Your task to perform on an android device: add a contact in the contacts app Image 0: 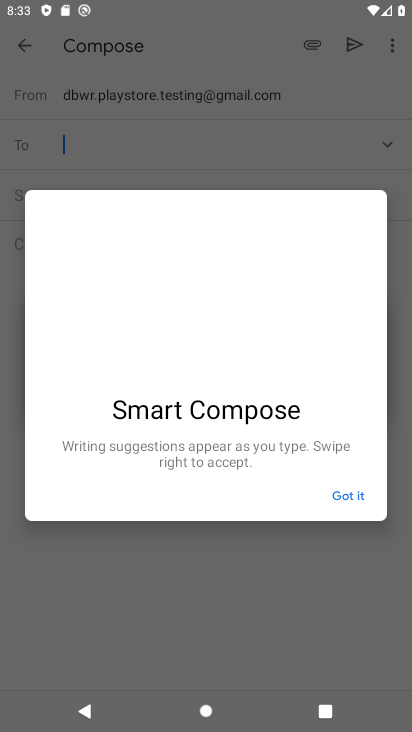
Step 0: press home button
Your task to perform on an android device: add a contact in the contacts app Image 1: 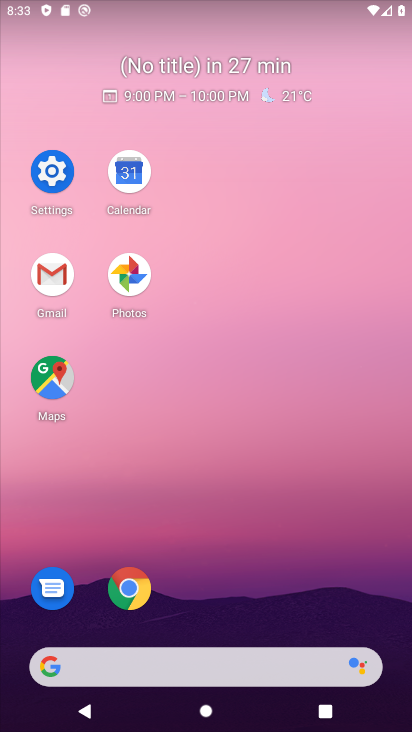
Step 1: drag from (318, 592) to (333, 233)
Your task to perform on an android device: add a contact in the contacts app Image 2: 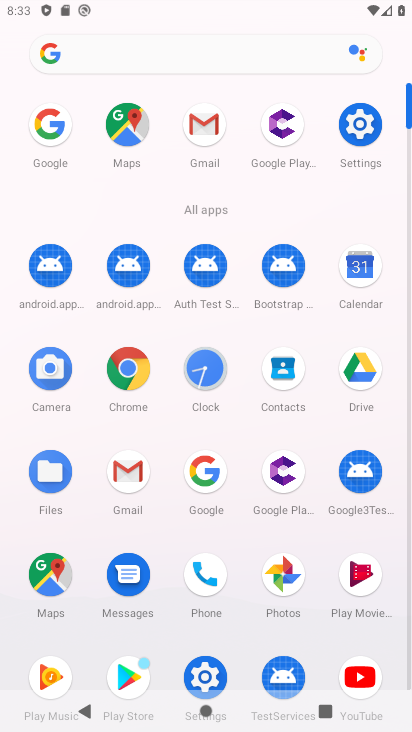
Step 2: drag from (287, 368) to (202, 293)
Your task to perform on an android device: add a contact in the contacts app Image 3: 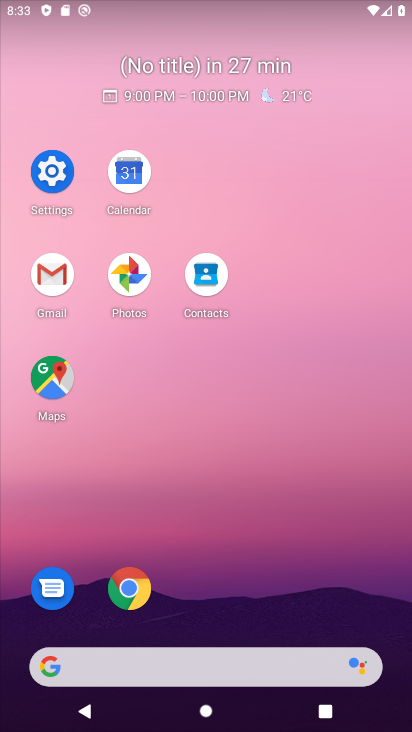
Step 3: click (212, 270)
Your task to perform on an android device: add a contact in the contacts app Image 4: 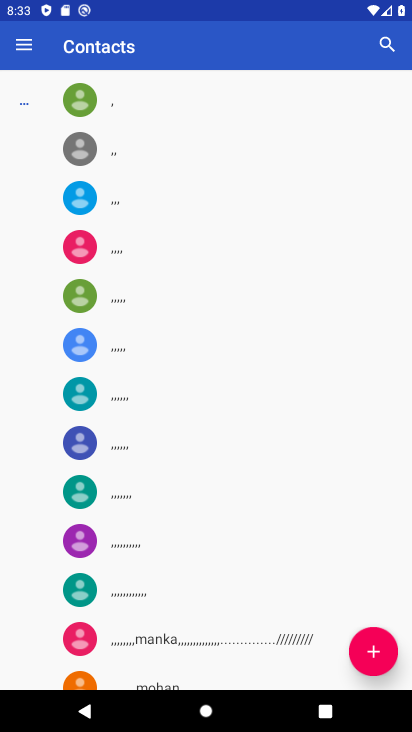
Step 4: click (363, 649)
Your task to perform on an android device: add a contact in the contacts app Image 5: 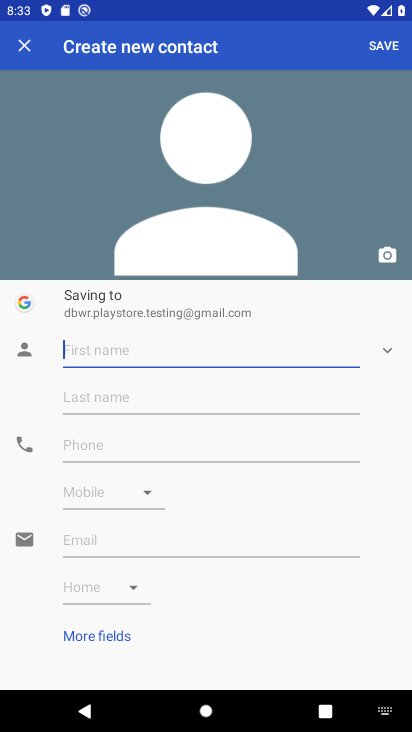
Step 5: type "hun"
Your task to perform on an android device: add a contact in the contacts app Image 6: 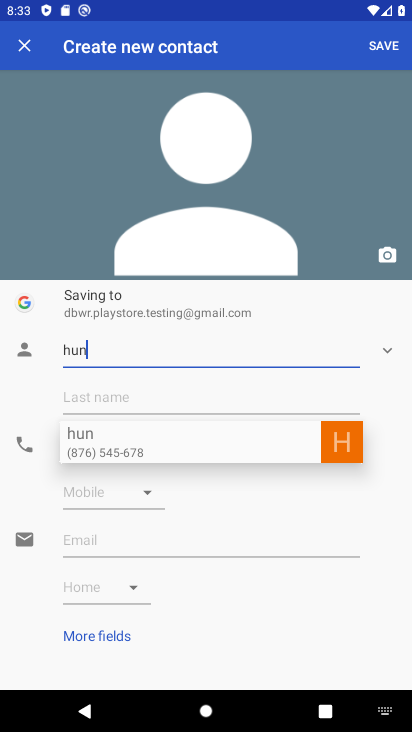
Step 6: click (113, 379)
Your task to perform on an android device: add a contact in the contacts app Image 7: 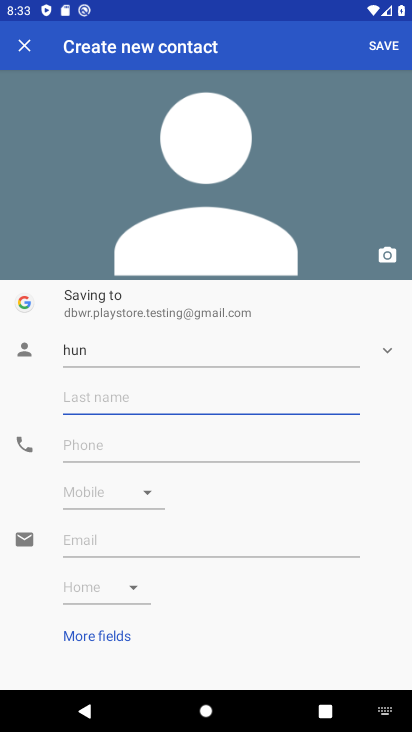
Step 7: type "tt"
Your task to perform on an android device: add a contact in the contacts app Image 8: 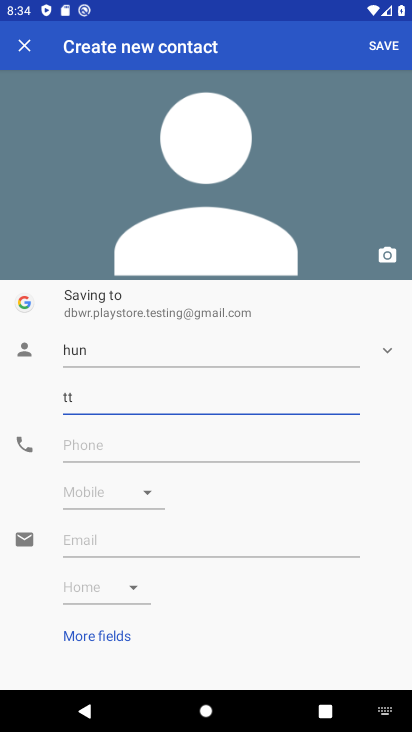
Step 8: click (156, 449)
Your task to perform on an android device: add a contact in the contacts app Image 9: 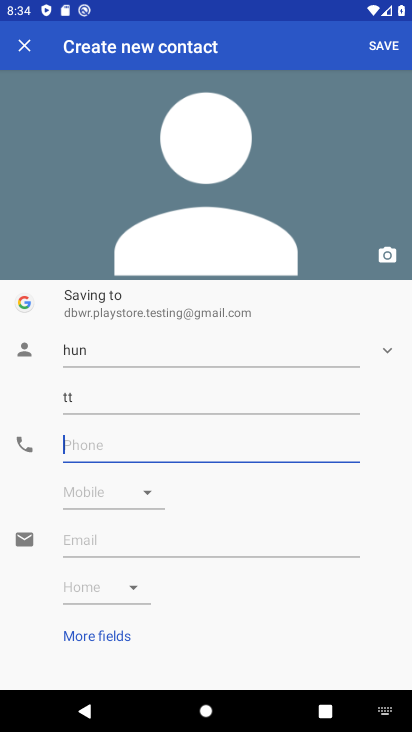
Step 9: type "8877665543"
Your task to perform on an android device: add a contact in the contacts app Image 10: 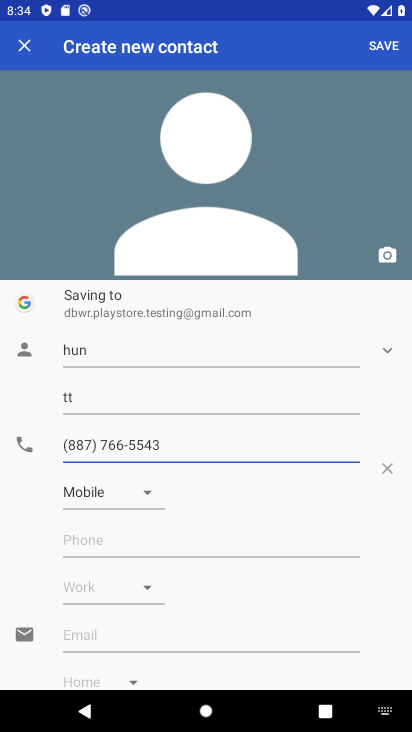
Step 10: click (388, 49)
Your task to perform on an android device: add a contact in the contacts app Image 11: 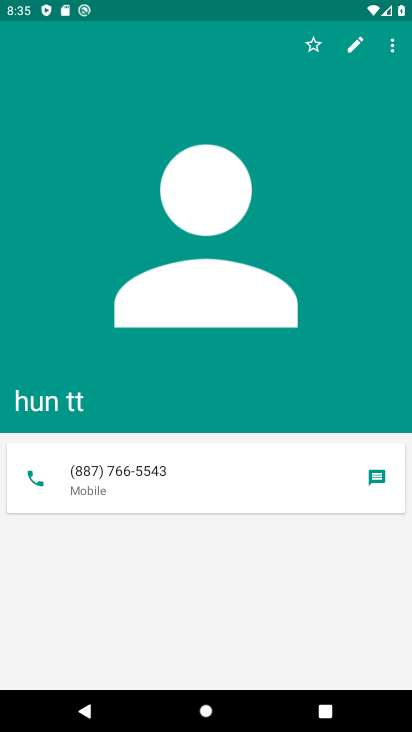
Step 11: task complete